Your task to perform on an android device: set an alarm Image 0: 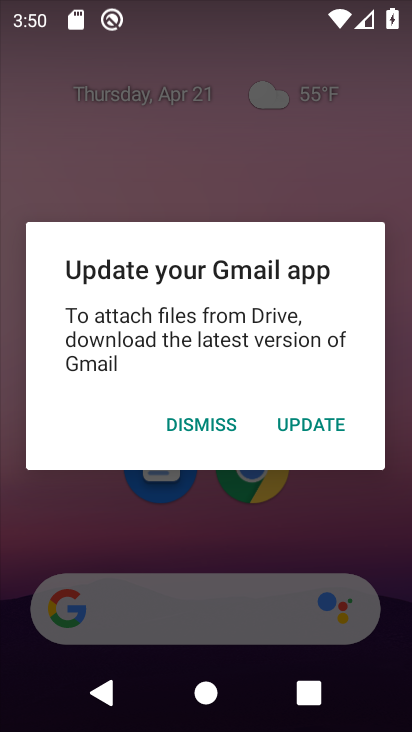
Step 0: press home button
Your task to perform on an android device: set an alarm Image 1: 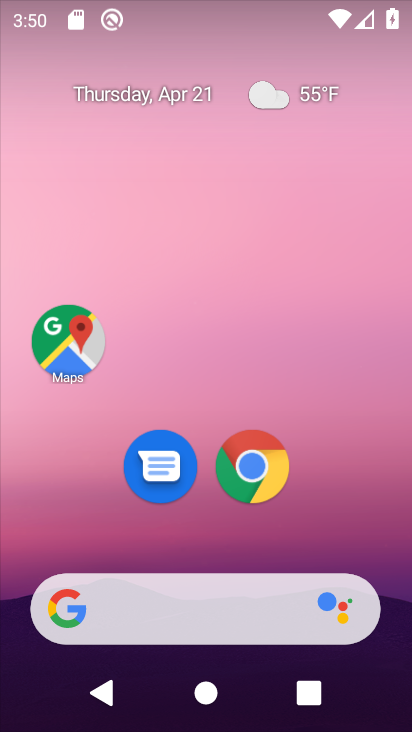
Step 1: drag from (196, 558) to (281, 76)
Your task to perform on an android device: set an alarm Image 2: 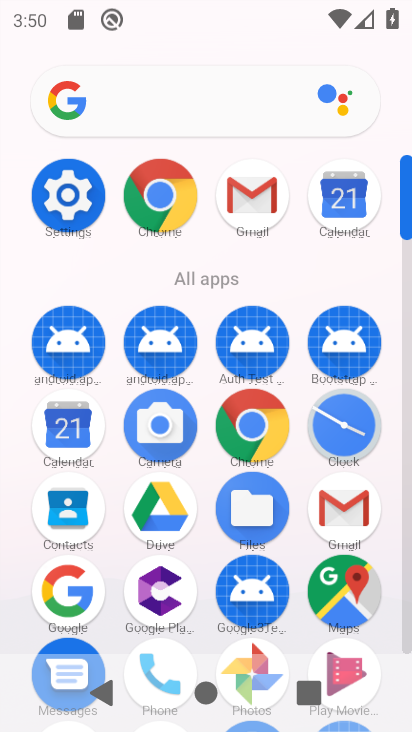
Step 2: click (364, 429)
Your task to perform on an android device: set an alarm Image 3: 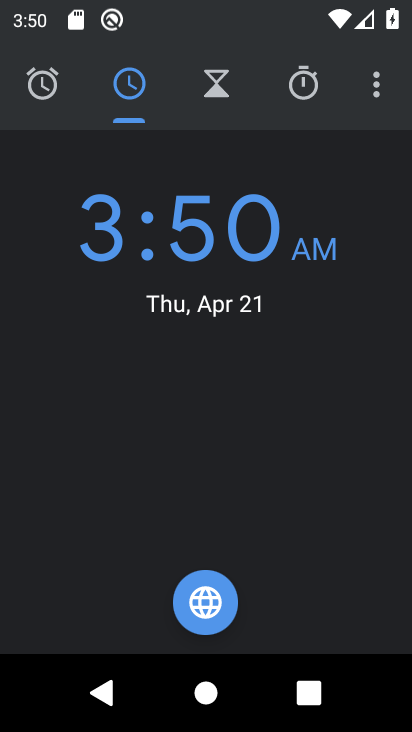
Step 3: click (306, 95)
Your task to perform on an android device: set an alarm Image 4: 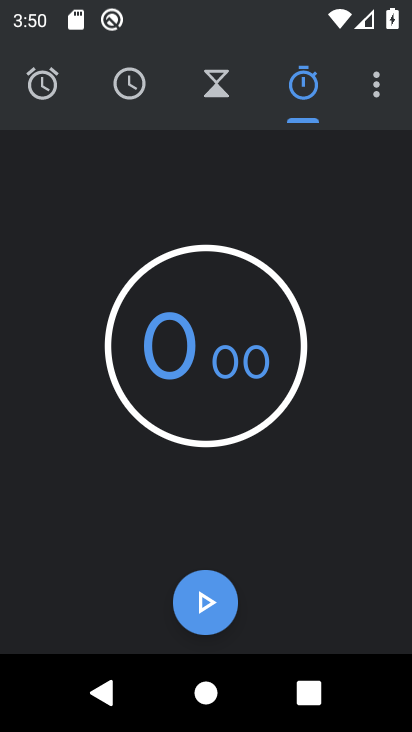
Step 4: click (65, 80)
Your task to perform on an android device: set an alarm Image 5: 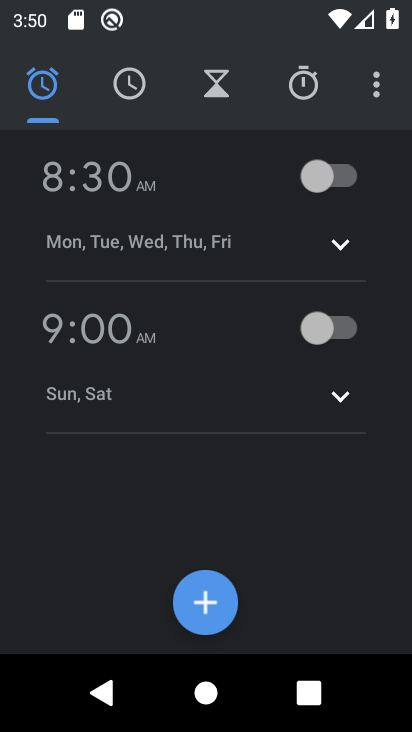
Step 5: click (315, 176)
Your task to perform on an android device: set an alarm Image 6: 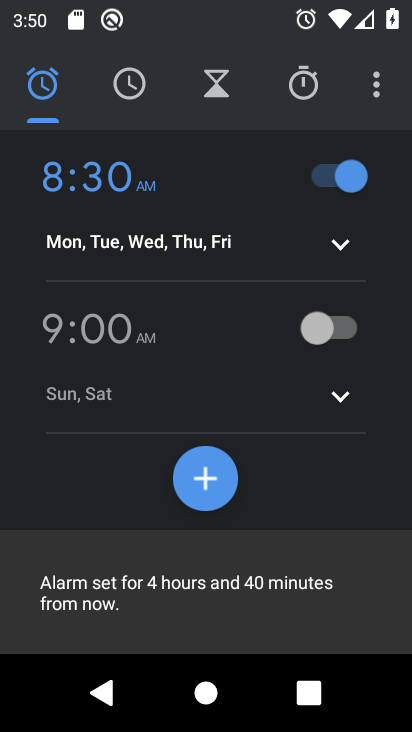
Step 6: task complete